Your task to perform on an android device: See recent photos Image 0: 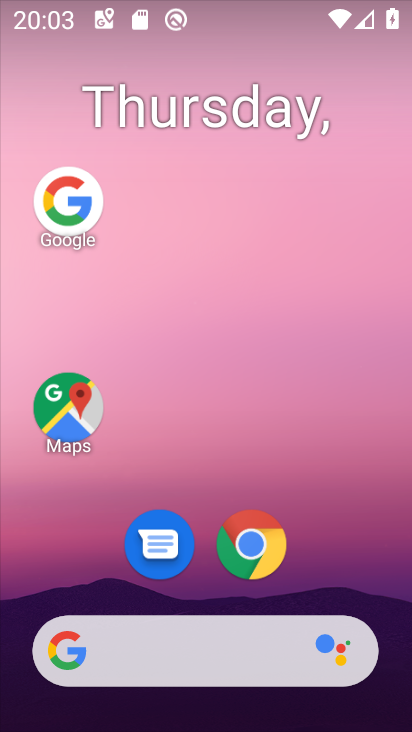
Step 0: drag from (257, 691) to (286, 112)
Your task to perform on an android device: See recent photos Image 1: 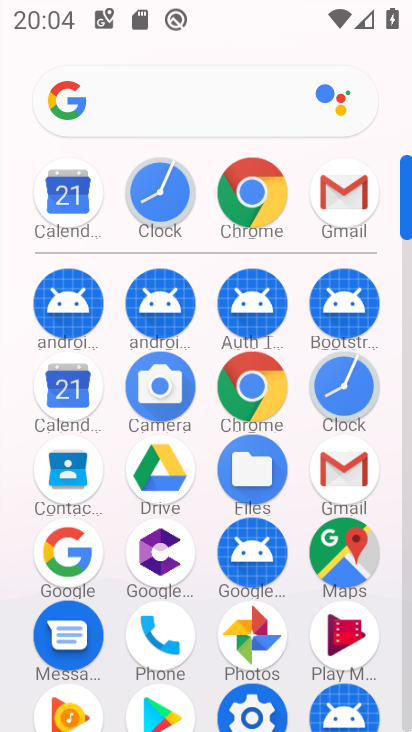
Step 1: click (245, 622)
Your task to perform on an android device: See recent photos Image 2: 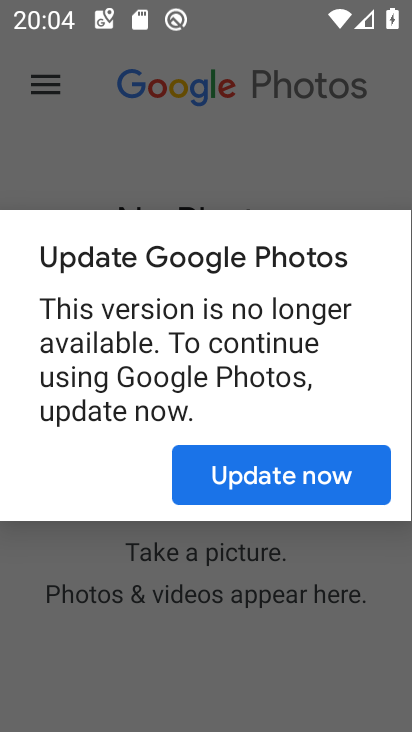
Step 2: click (277, 474)
Your task to perform on an android device: See recent photos Image 3: 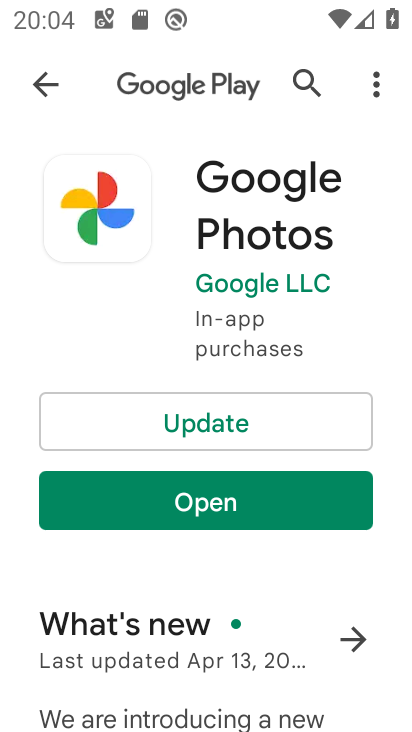
Step 3: click (217, 506)
Your task to perform on an android device: See recent photos Image 4: 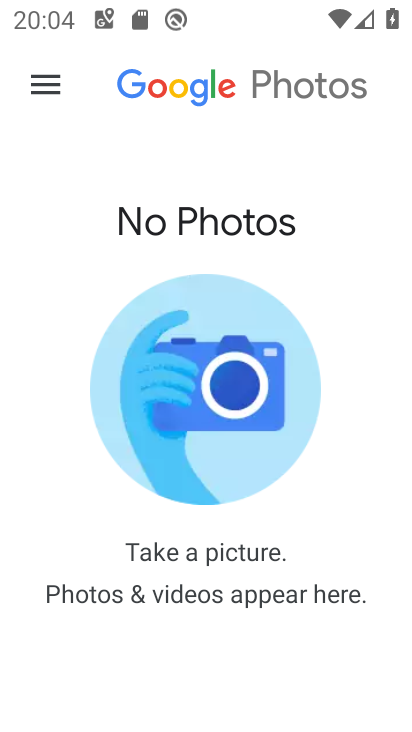
Step 4: task complete